Your task to perform on an android device: turn off picture-in-picture Image 0: 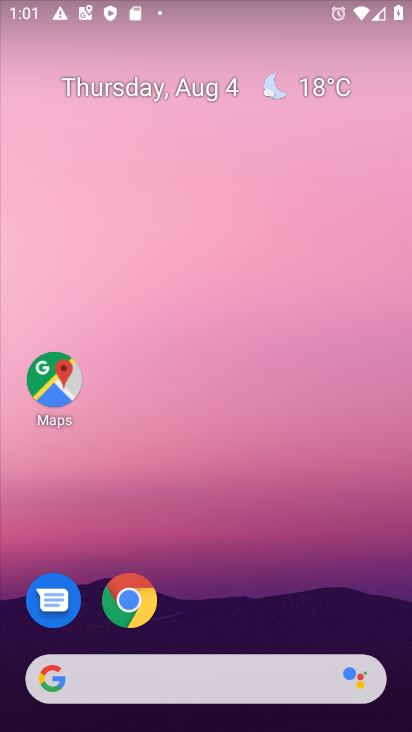
Step 0: press home button
Your task to perform on an android device: turn off picture-in-picture Image 1: 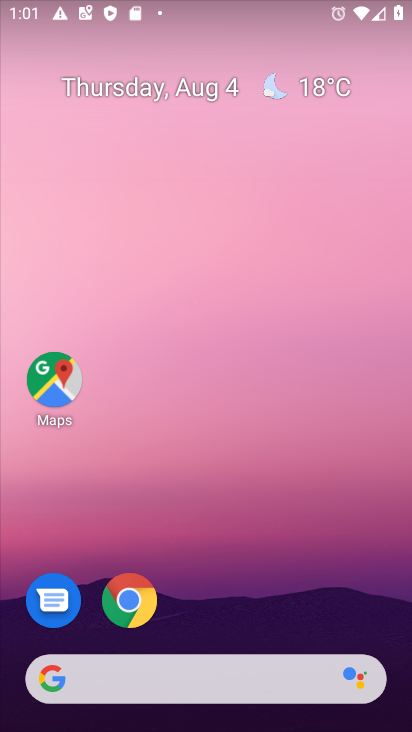
Step 1: click (125, 595)
Your task to perform on an android device: turn off picture-in-picture Image 2: 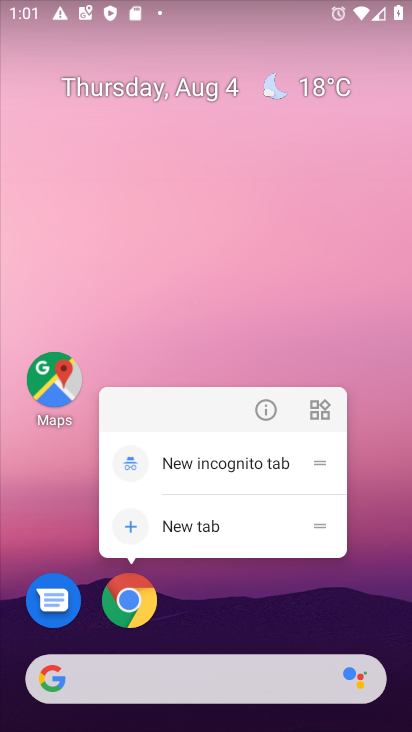
Step 2: click (266, 412)
Your task to perform on an android device: turn off picture-in-picture Image 3: 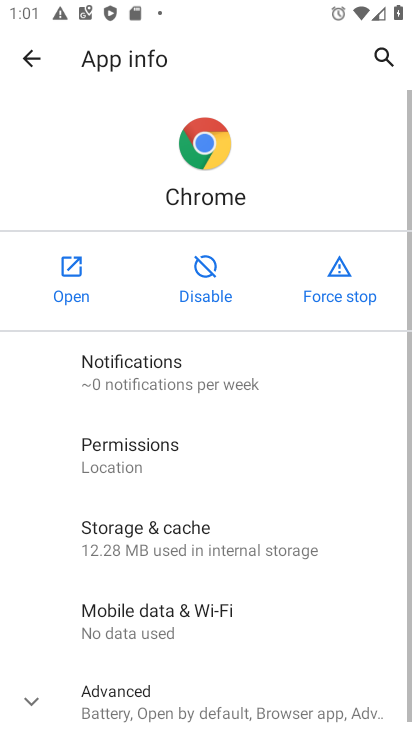
Step 3: drag from (236, 674) to (344, 98)
Your task to perform on an android device: turn off picture-in-picture Image 4: 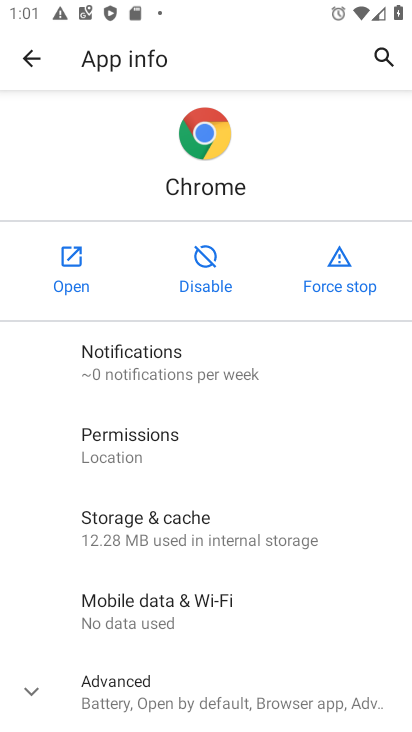
Step 4: click (140, 682)
Your task to perform on an android device: turn off picture-in-picture Image 5: 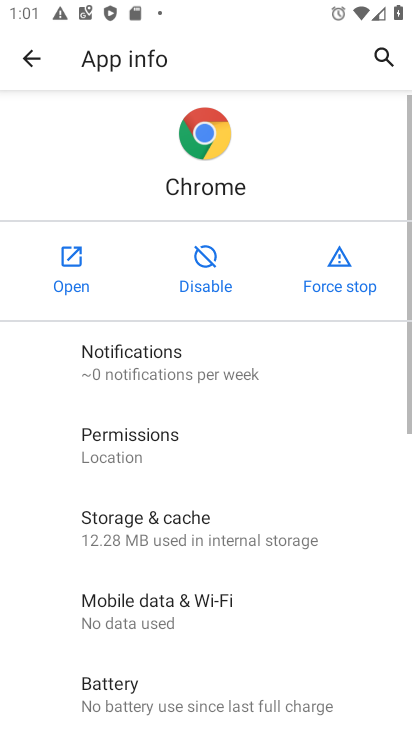
Step 5: drag from (267, 668) to (338, 70)
Your task to perform on an android device: turn off picture-in-picture Image 6: 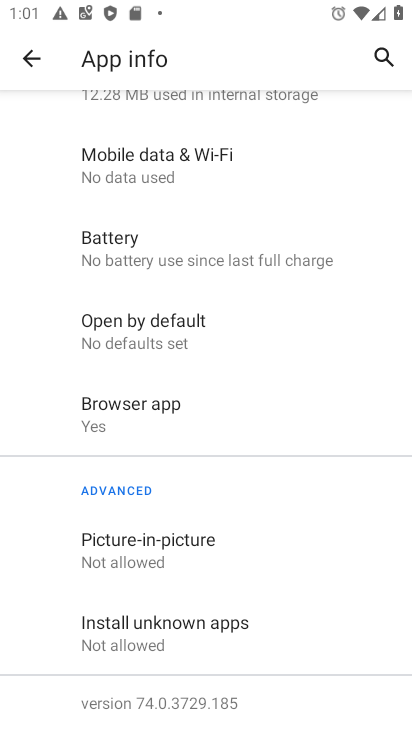
Step 6: click (143, 553)
Your task to perform on an android device: turn off picture-in-picture Image 7: 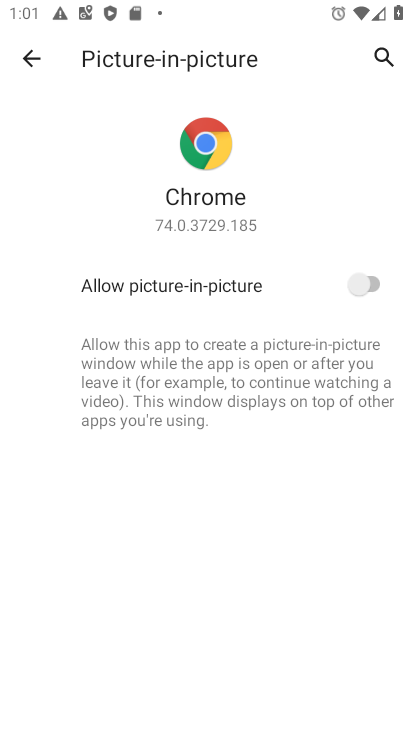
Step 7: task complete